Your task to perform on an android device: change the clock display to digital Image 0: 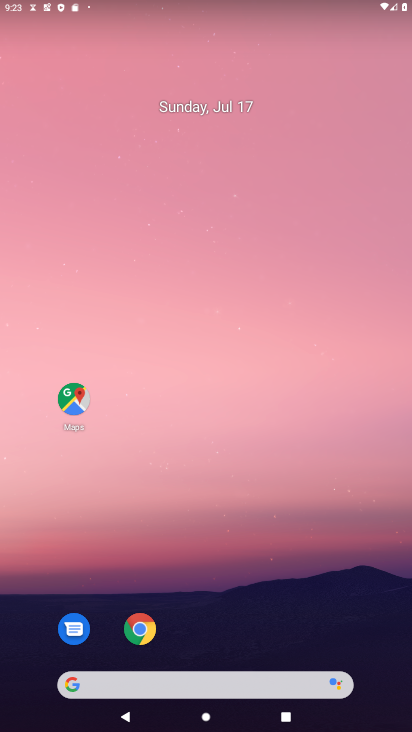
Step 0: drag from (223, 705) to (255, 10)
Your task to perform on an android device: change the clock display to digital Image 1: 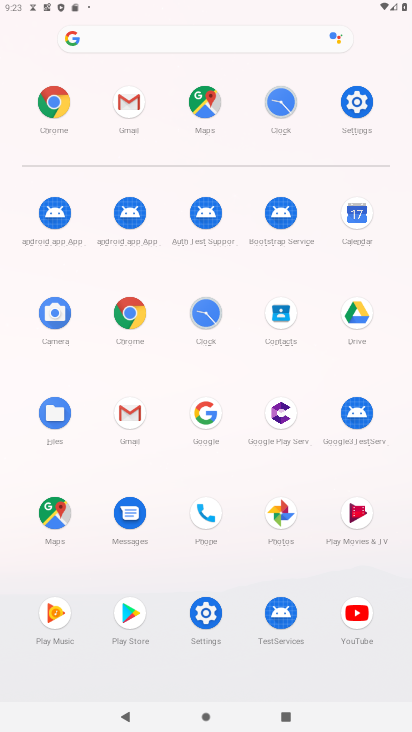
Step 1: click (201, 314)
Your task to perform on an android device: change the clock display to digital Image 2: 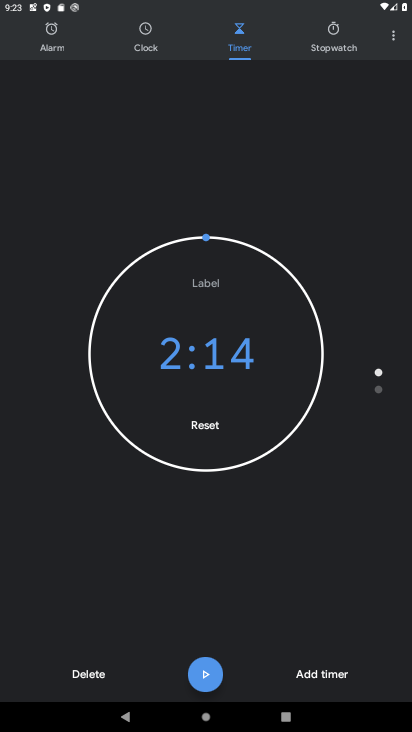
Step 2: click (393, 36)
Your task to perform on an android device: change the clock display to digital Image 3: 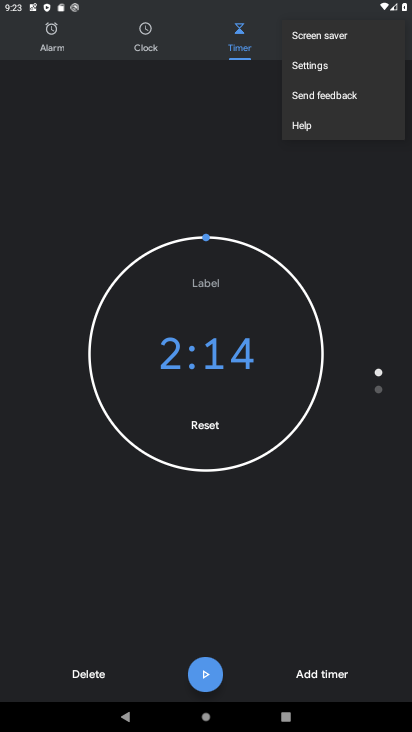
Step 3: click (312, 60)
Your task to perform on an android device: change the clock display to digital Image 4: 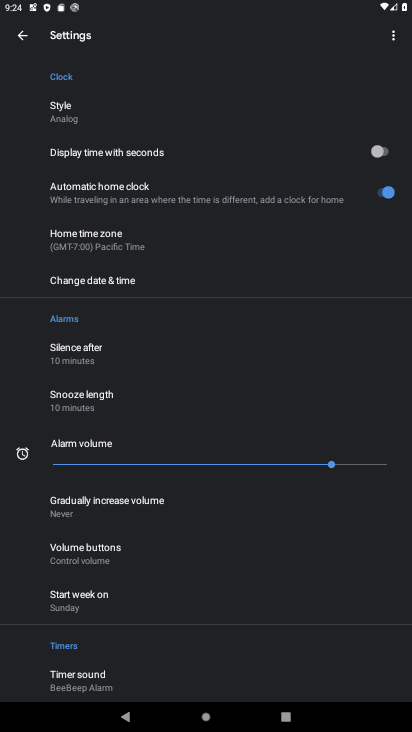
Step 4: click (67, 112)
Your task to perform on an android device: change the clock display to digital Image 5: 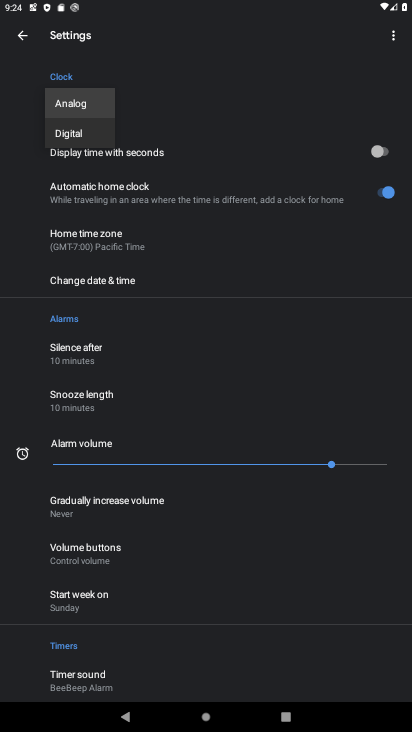
Step 5: click (70, 129)
Your task to perform on an android device: change the clock display to digital Image 6: 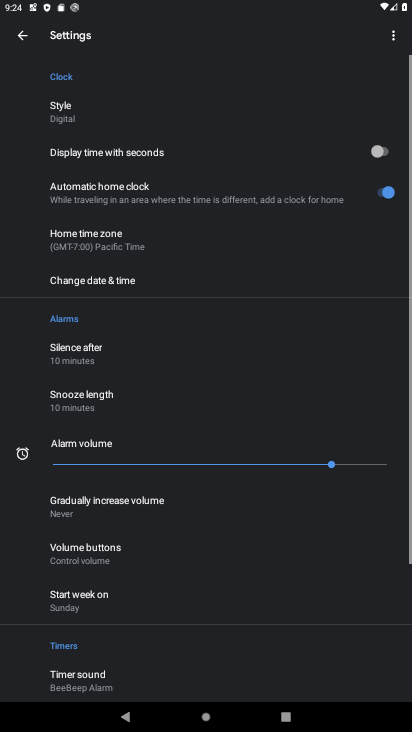
Step 6: task complete